Your task to perform on an android device: Open ESPN.com Image 0: 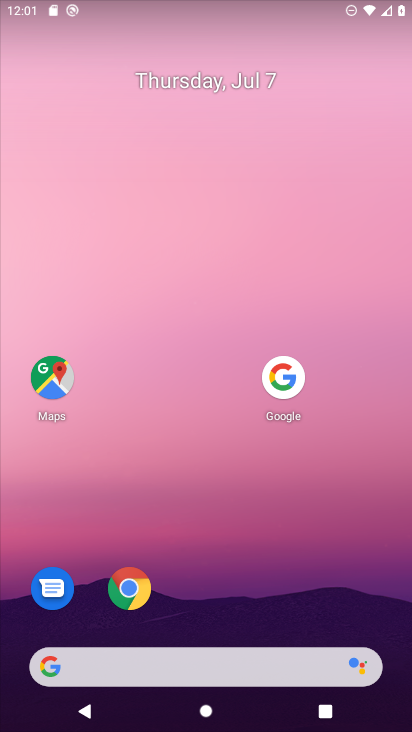
Step 0: click (138, 577)
Your task to perform on an android device: Open ESPN.com Image 1: 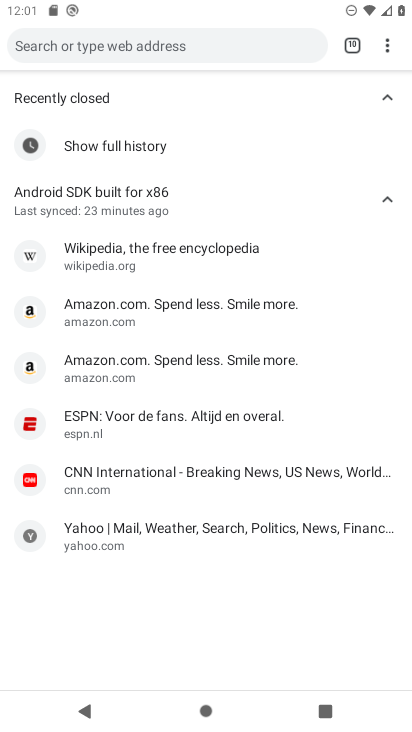
Step 1: click (385, 55)
Your task to perform on an android device: Open ESPN.com Image 2: 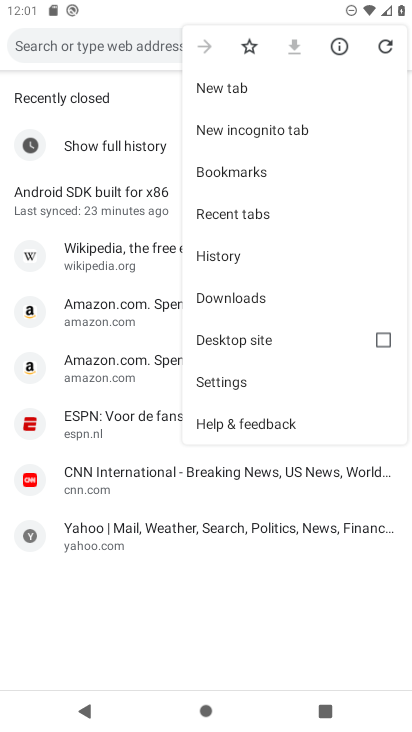
Step 2: click (237, 86)
Your task to perform on an android device: Open ESPN.com Image 3: 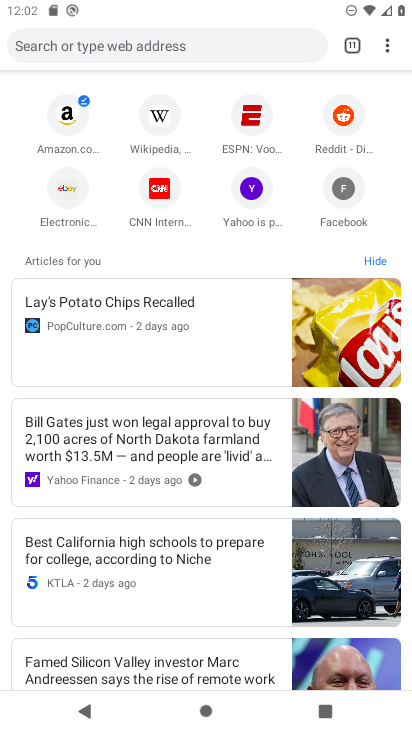
Step 3: click (256, 115)
Your task to perform on an android device: Open ESPN.com Image 4: 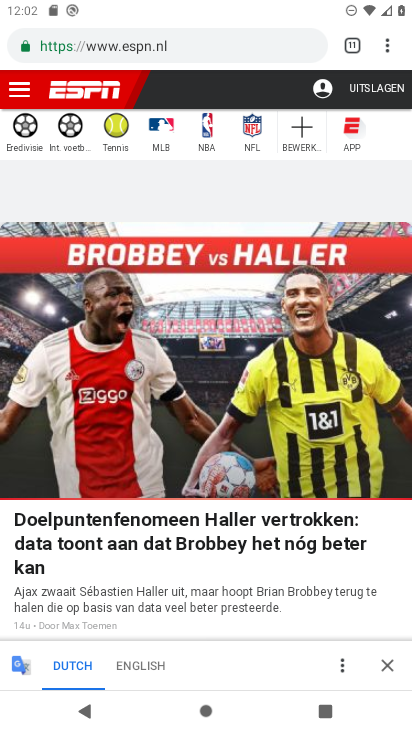
Step 4: task complete